Your task to perform on an android device: add a contact in the contacts app Image 0: 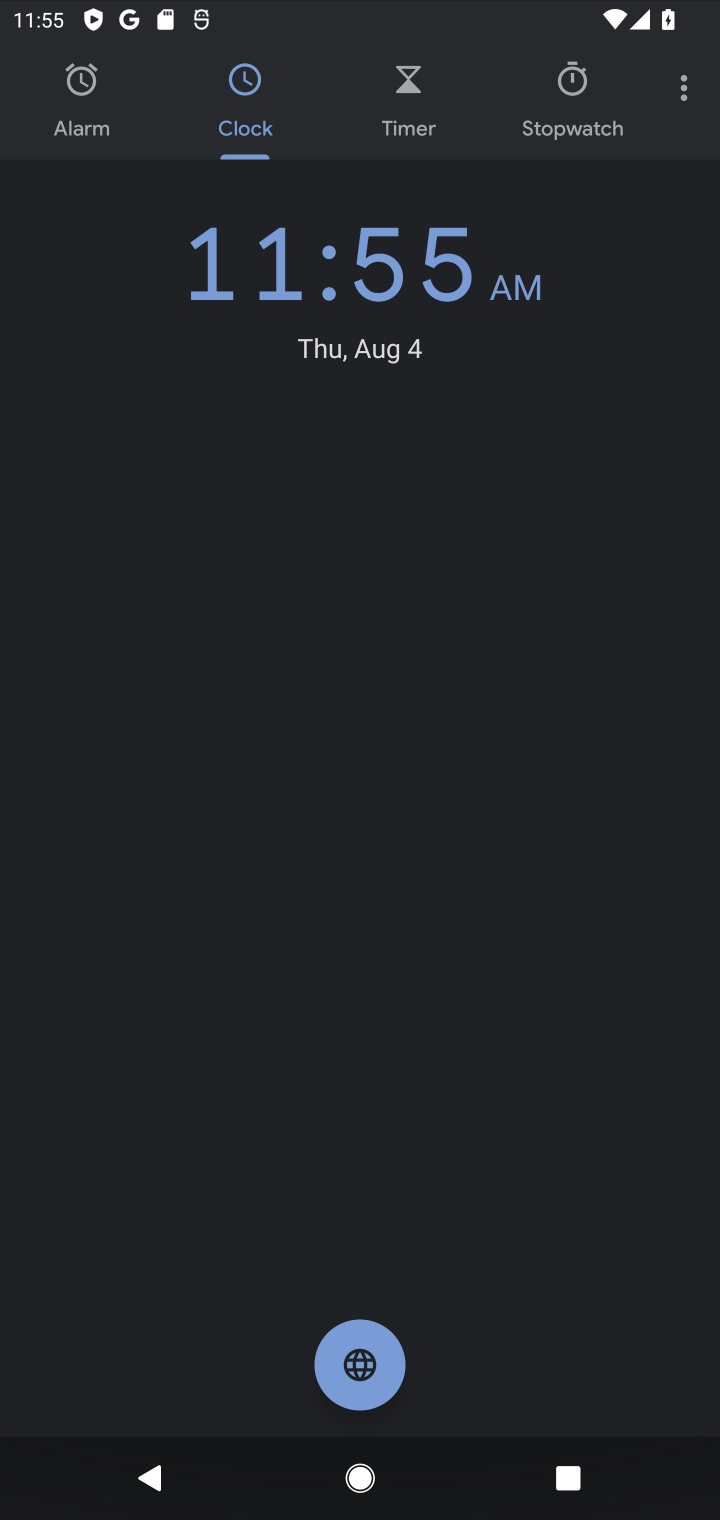
Step 0: click (623, 1266)
Your task to perform on an android device: add a contact in the contacts app Image 1: 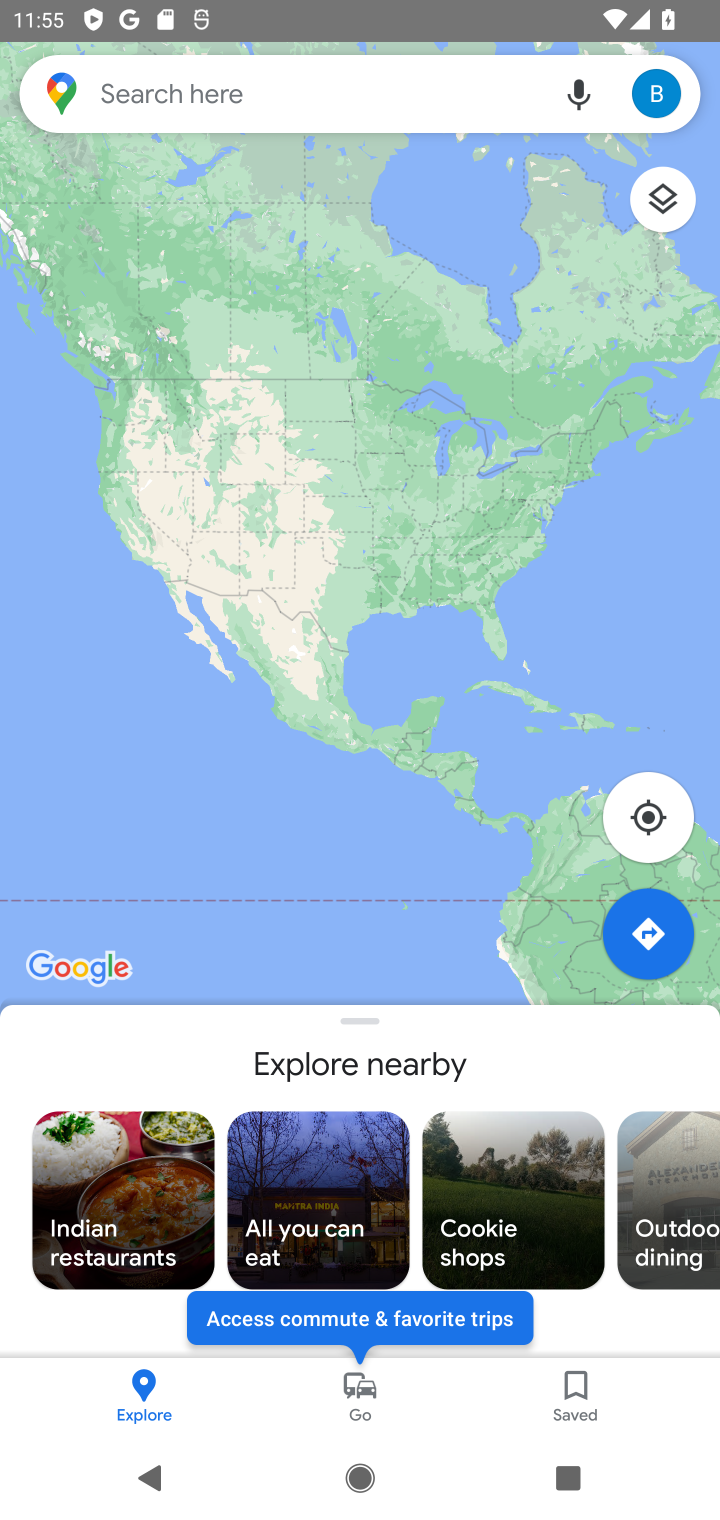
Step 1: task complete